Your task to perform on an android device: Turn off the flashlight Image 0: 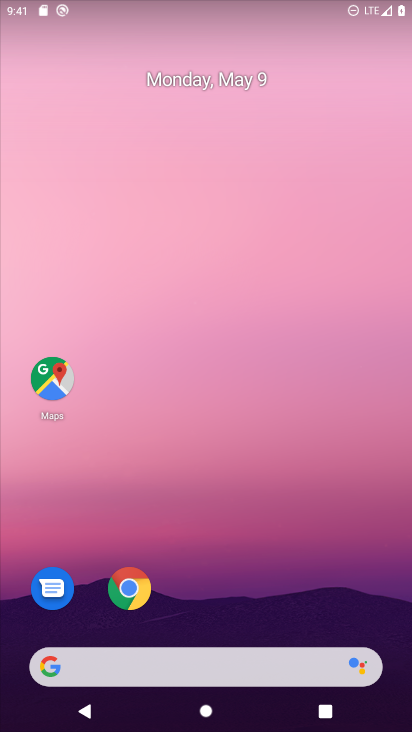
Step 0: drag from (315, 619) to (289, 17)
Your task to perform on an android device: Turn off the flashlight Image 1: 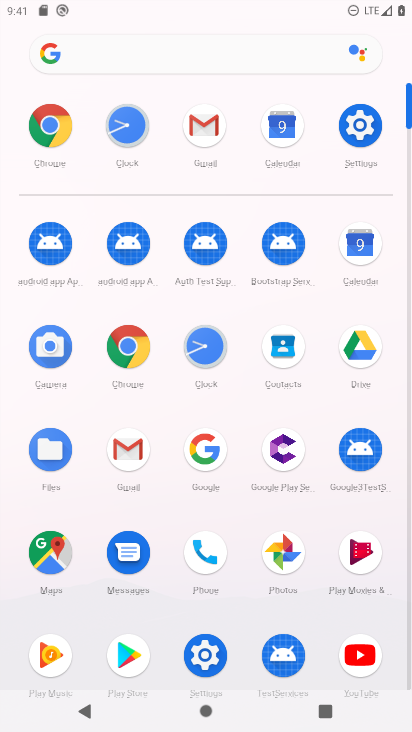
Step 1: click (352, 104)
Your task to perform on an android device: Turn off the flashlight Image 2: 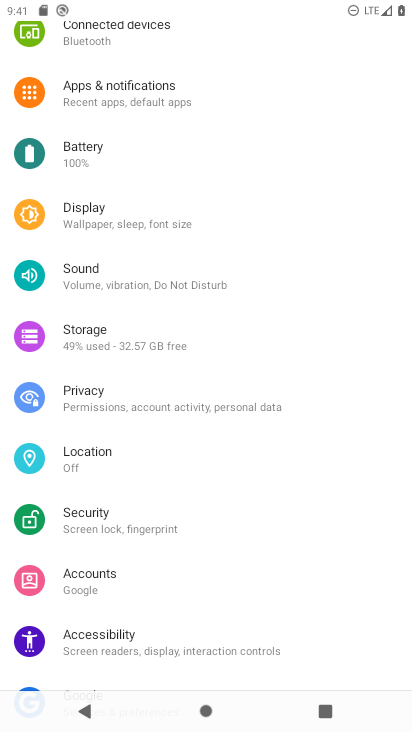
Step 2: drag from (147, 554) to (154, 296)
Your task to perform on an android device: Turn off the flashlight Image 3: 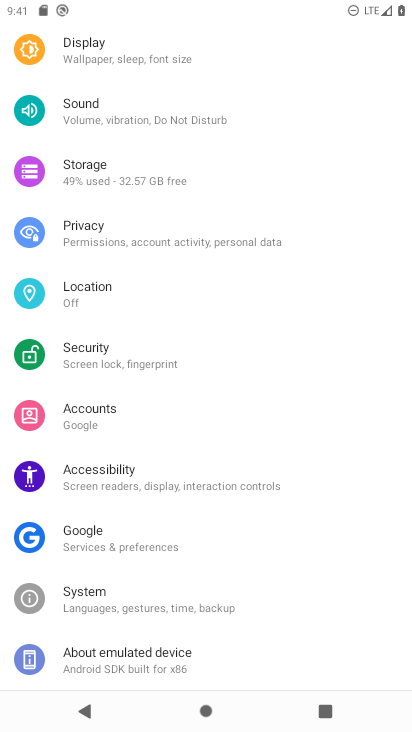
Step 3: click (148, 296)
Your task to perform on an android device: Turn off the flashlight Image 4: 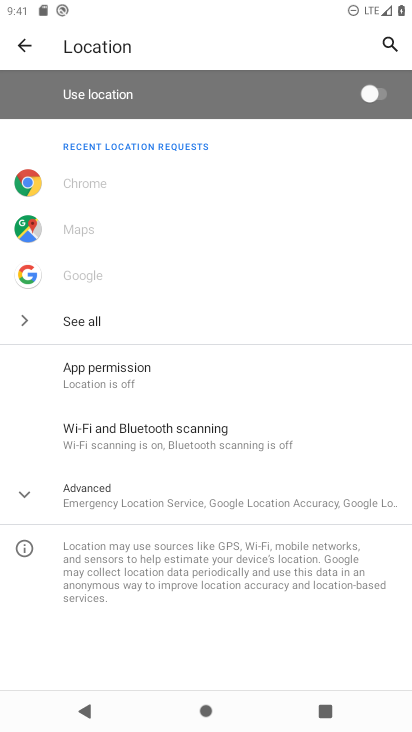
Step 4: task complete